Your task to perform on an android device: check the backup settings in the google photos Image 0: 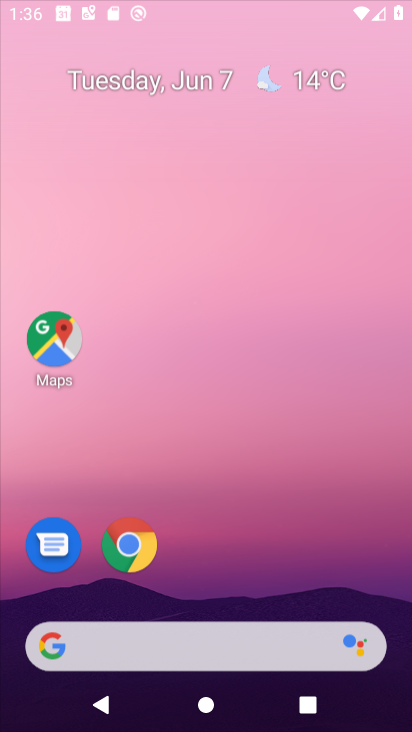
Step 0: press home button
Your task to perform on an android device: check the backup settings in the google photos Image 1: 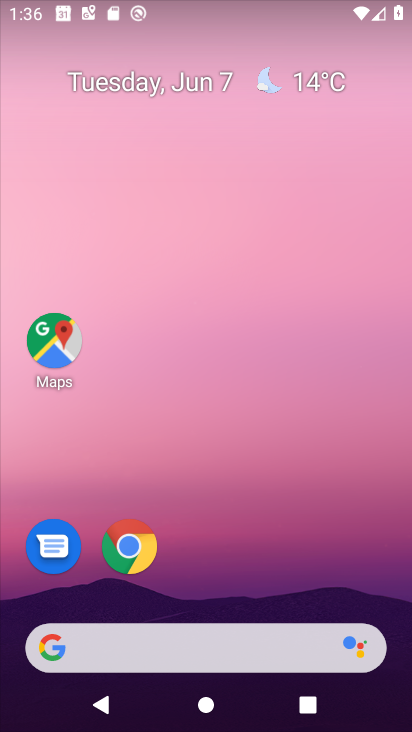
Step 1: drag from (162, 606) to (401, 85)
Your task to perform on an android device: check the backup settings in the google photos Image 2: 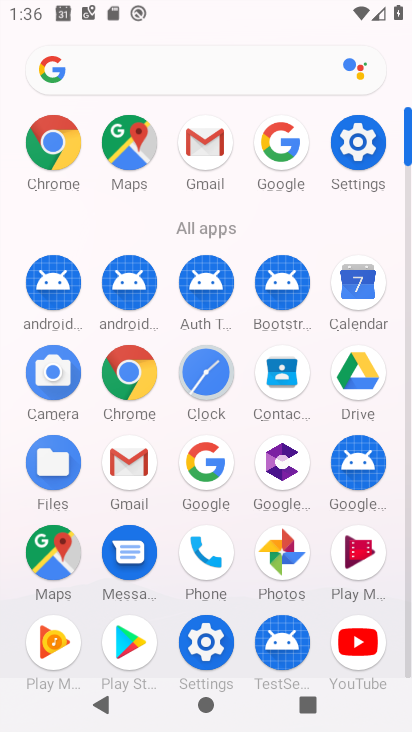
Step 2: click (282, 544)
Your task to perform on an android device: check the backup settings in the google photos Image 3: 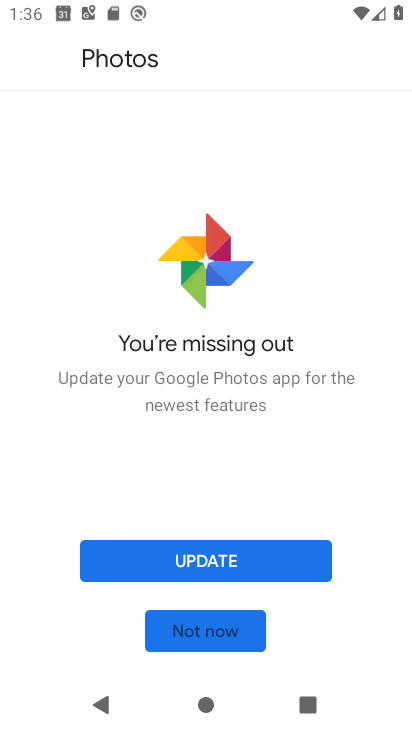
Step 3: click (201, 637)
Your task to perform on an android device: check the backup settings in the google photos Image 4: 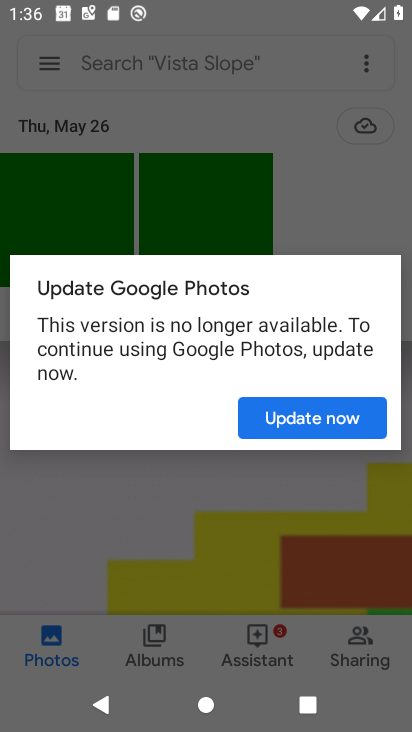
Step 4: click (305, 406)
Your task to perform on an android device: check the backup settings in the google photos Image 5: 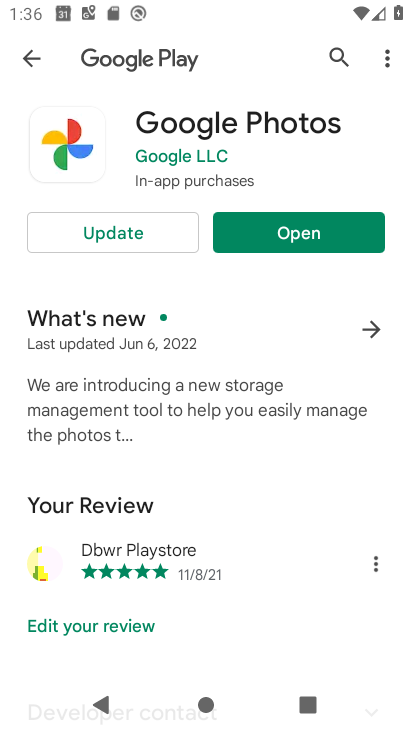
Step 5: click (115, 232)
Your task to perform on an android device: check the backup settings in the google photos Image 6: 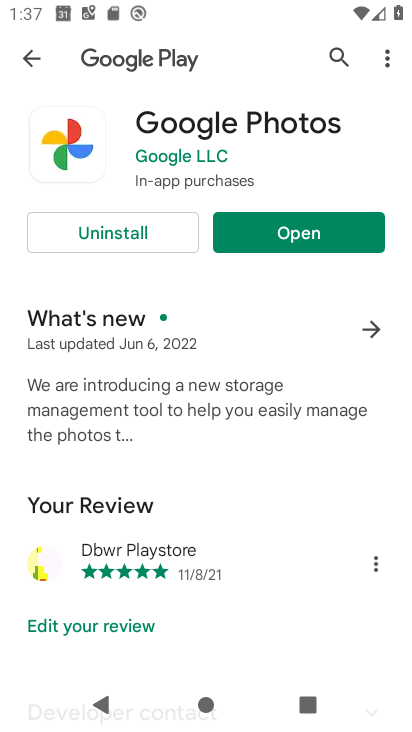
Step 6: click (237, 230)
Your task to perform on an android device: check the backup settings in the google photos Image 7: 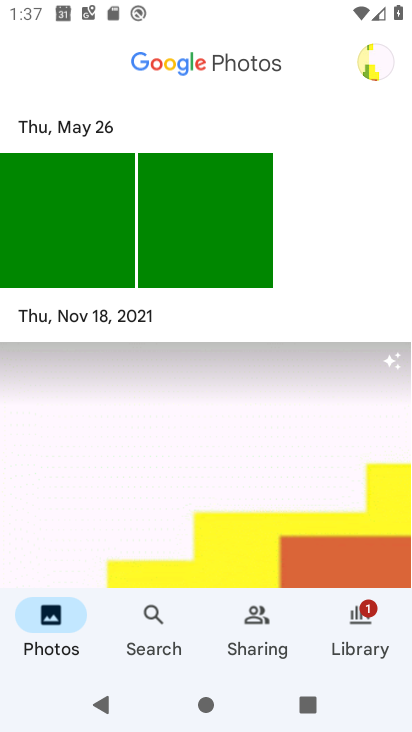
Step 7: click (379, 72)
Your task to perform on an android device: check the backup settings in the google photos Image 8: 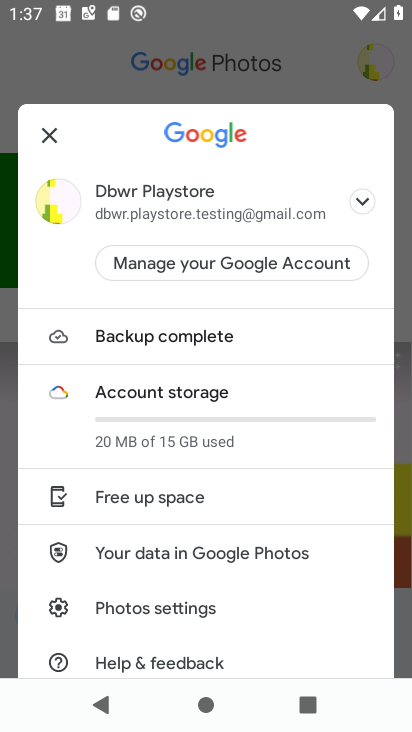
Step 8: drag from (300, 617) to (296, 356)
Your task to perform on an android device: check the backup settings in the google photos Image 9: 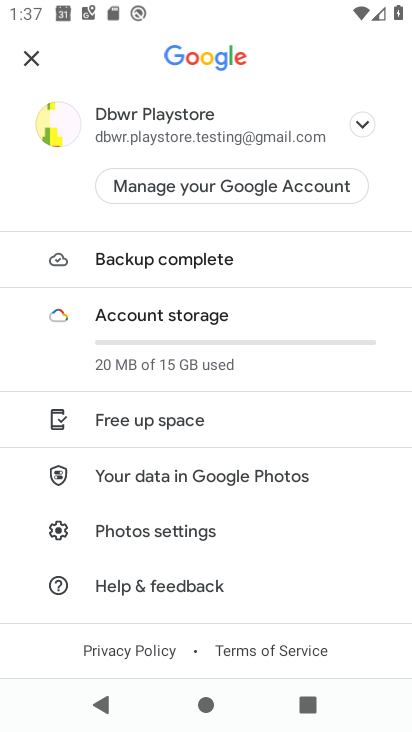
Step 9: click (171, 529)
Your task to perform on an android device: check the backup settings in the google photos Image 10: 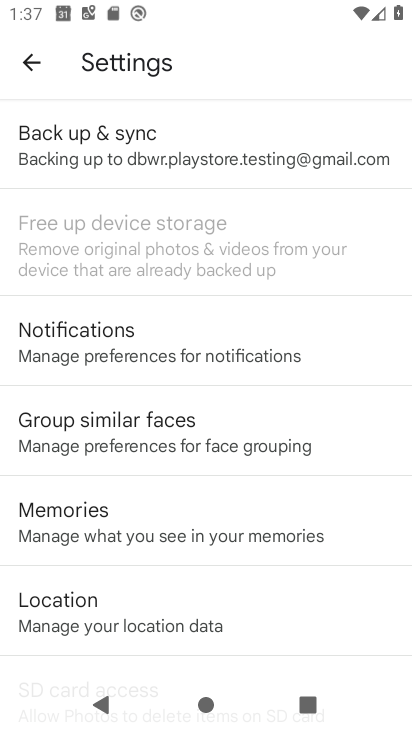
Step 10: click (113, 143)
Your task to perform on an android device: check the backup settings in the google photos Image 11: 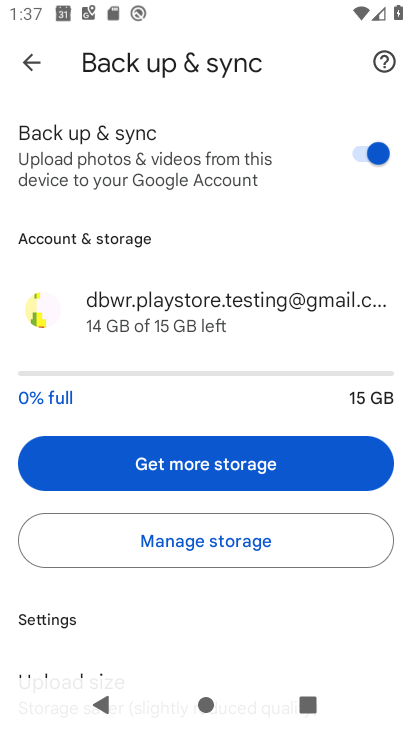
Step 11: click (108, 139)
Your task to perform on an android device: check the backup settings in the google photos Image 12: 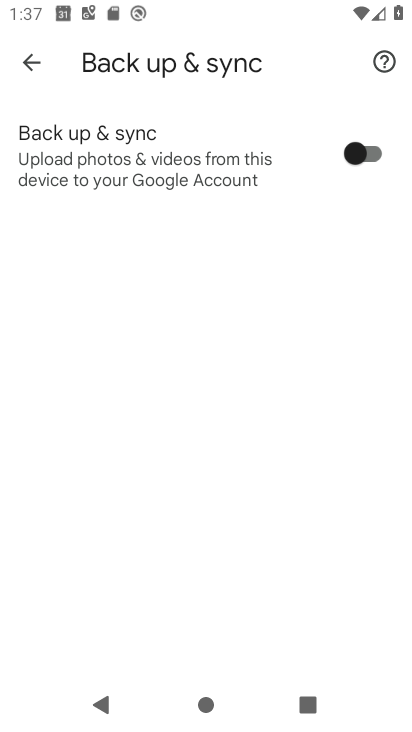
Step 12: task complete